Your task to perform on an android device: find which apps use the phone's location Image 0: 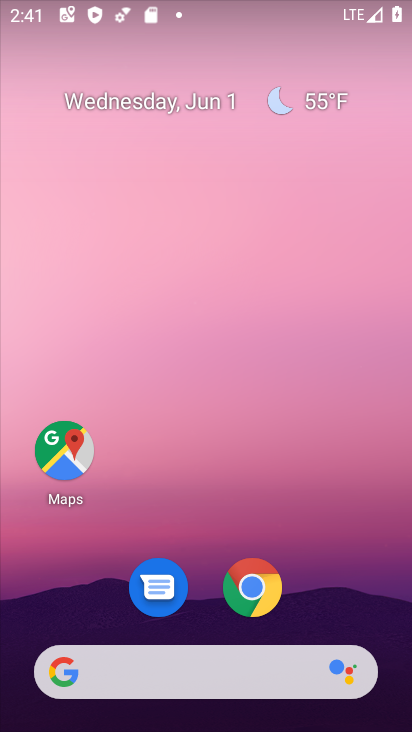
Step 0: drag from (266, 660) to (329, 261)
Your task to perform on an android device: find which apps use the phone's location Image 1: 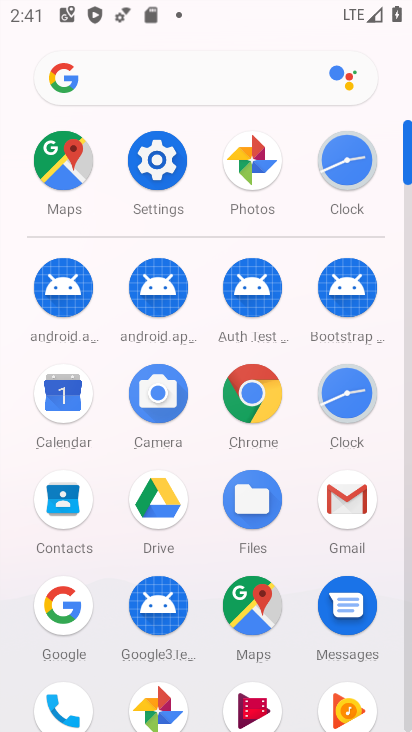
Step 1: click (159, 161)
Your task to perform on an android device: find which apps use the phone's location Image 2: 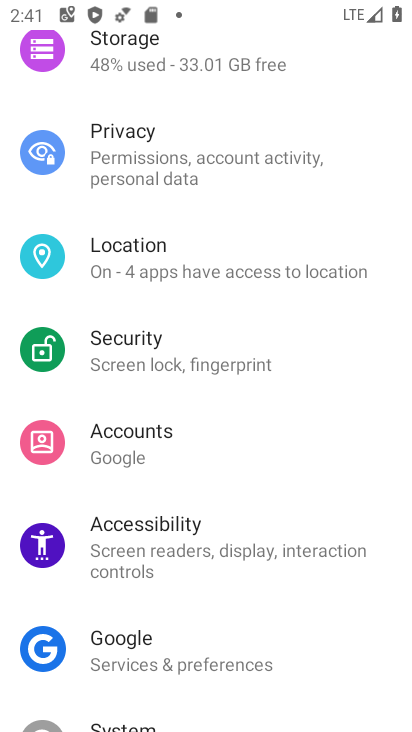
Step 2: click (189, 250)
Your task to perform on an android device: find which apps use the phone's location Image 3: 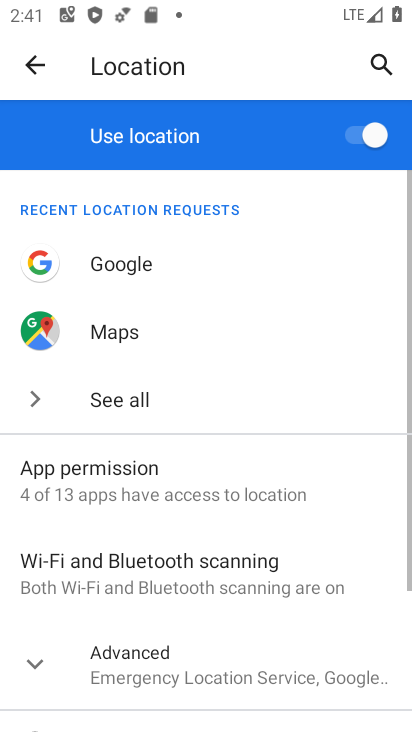
Step 3: click (170, 489)
Your task to perform on an android device: find which apps use the phone's location Image 4: 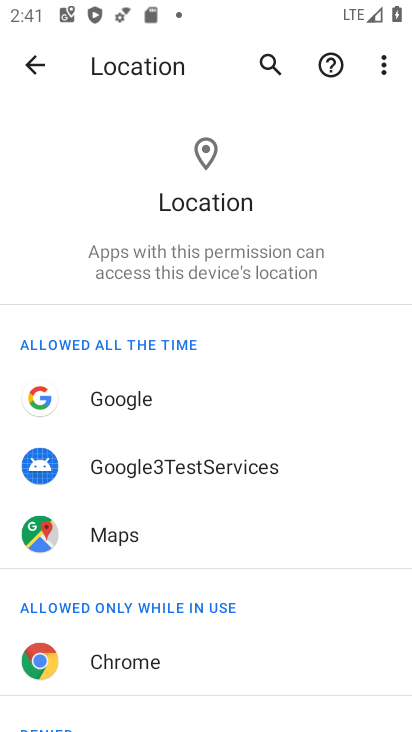
Step 4: task complete